Your task to perform on an android device: all mails in gmail Image 0: 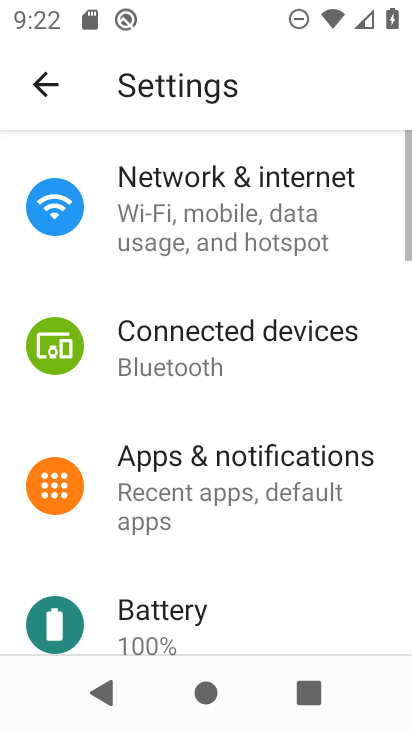
Step 0: press home button
Your task to perform on an android device: all mails in gmail Image 1: 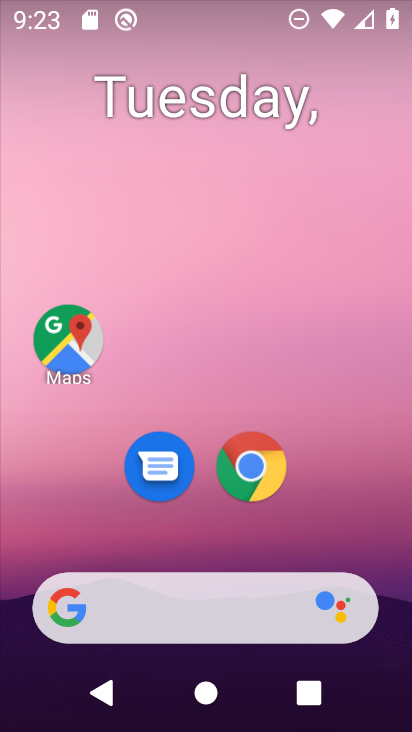
Step 1: drag from (364, 480) to (296, 1)
Your task to perform on an android device: all mails in gmail Image 2: 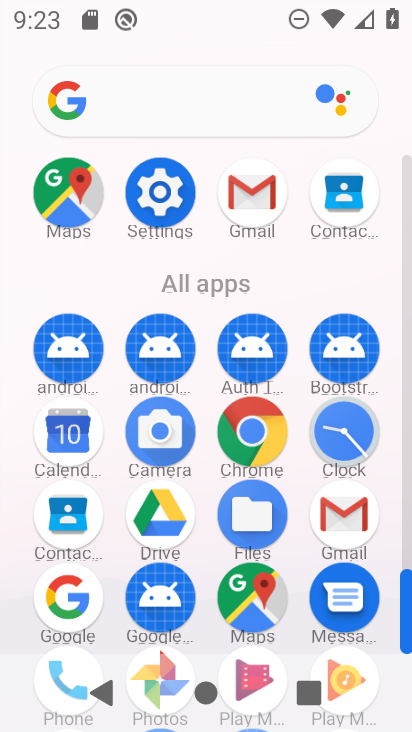
Step 2: click (349, 519)
Your task to perform on an android device: all mails in gmail Image 3: 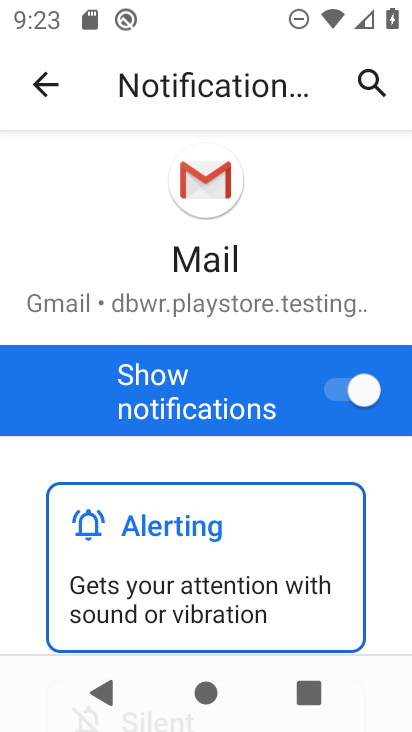
Step 3: click (37, 86)
Your task to perform on an android device: all mails in gmail Image 4: 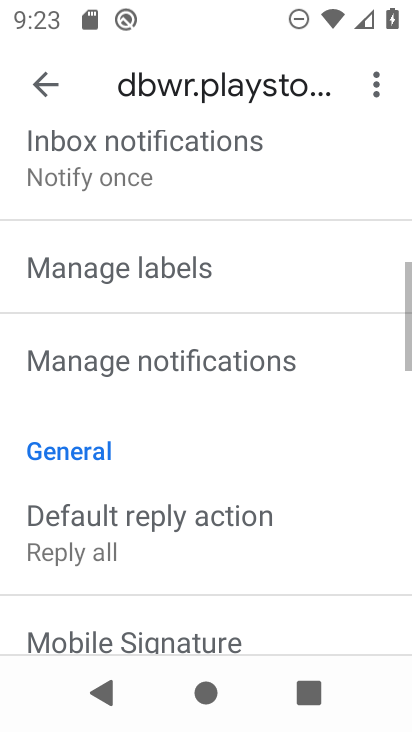
Step 4: click (37, 86)
Your task to perform on an android device: all mails in gmail Image 5: 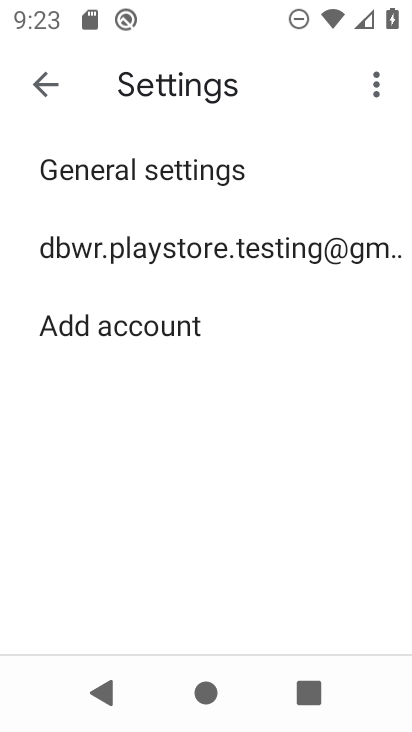
Step 5: click (37, 85)
Your task to perform on an android device: all mails in gmail Image 6: 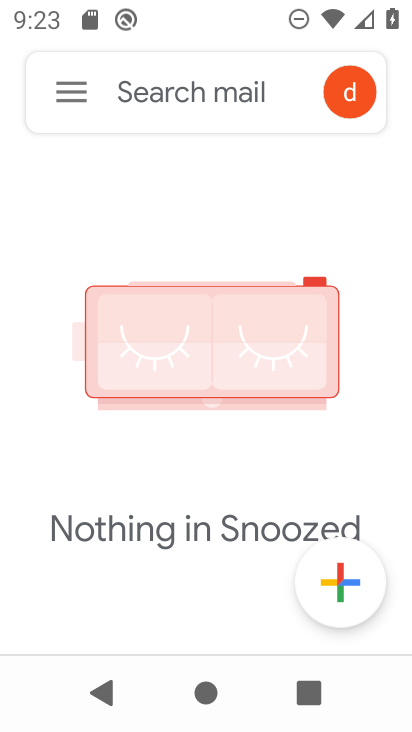
Step 6: click (63, 84)
Your task to perform on an android device: all mails in gmail Image 7: 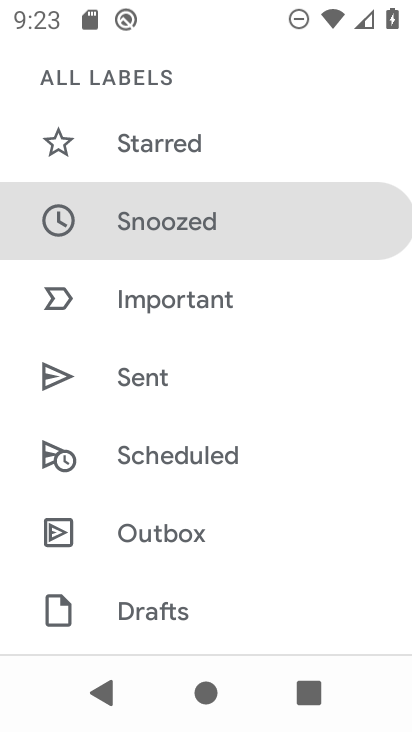
Step 7: drag from (304, 571) to (255, 113)
Your task to perform on an android device: all mails in gmail Image 8: 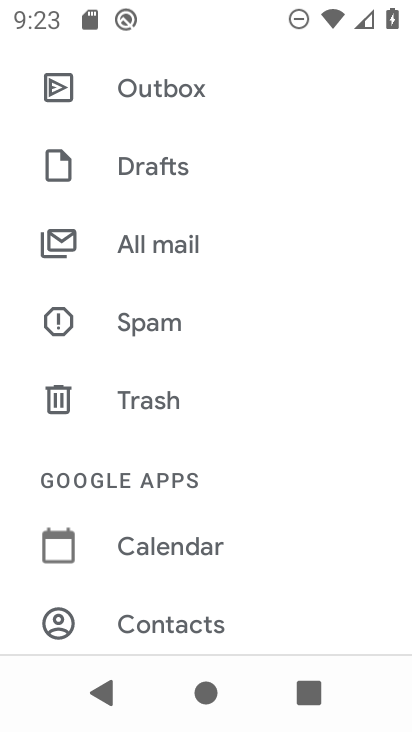
Step 8: drag from (223, 169) to (156, 578)
Your task to perform on an android device: all mails in gmail Image 9: 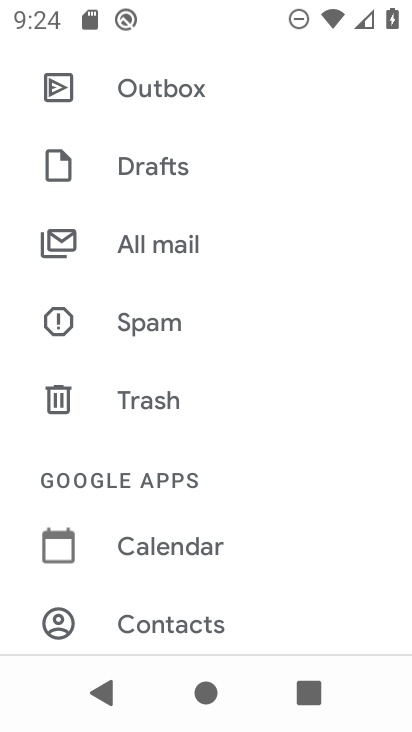
Step 9: click (167, 240)
Your task to perform on an android device: all mails in gmail Image 10: 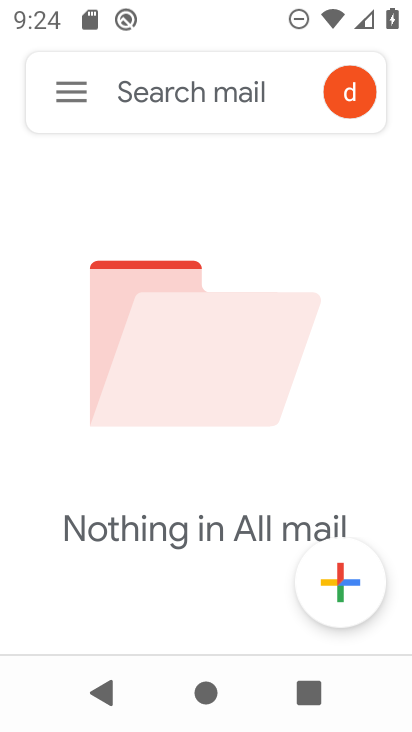
Step 10: click (63, 79)
Your task to perform on an android device: all mails in gmail Image 11: 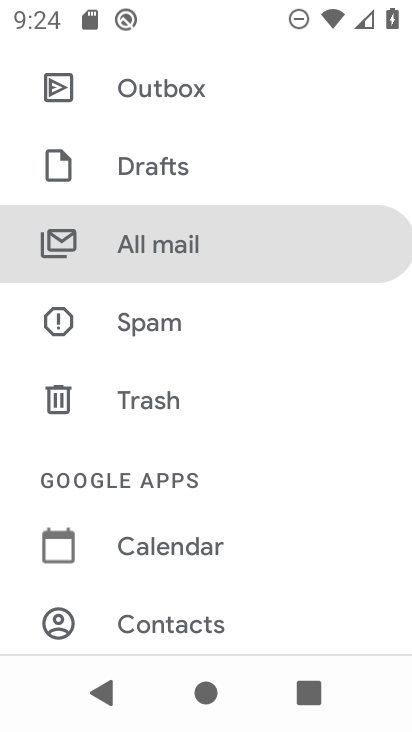
Step 11: click (168, 217)
Your task to perform on an android device: all mails in gmail Image 12: 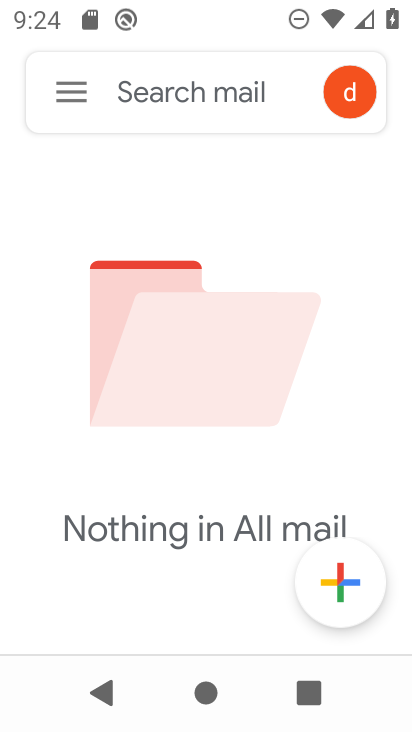
Step 12: task complete